Your task to perform on an android device: Open the phone app and click the voicemail tab. Image 0: 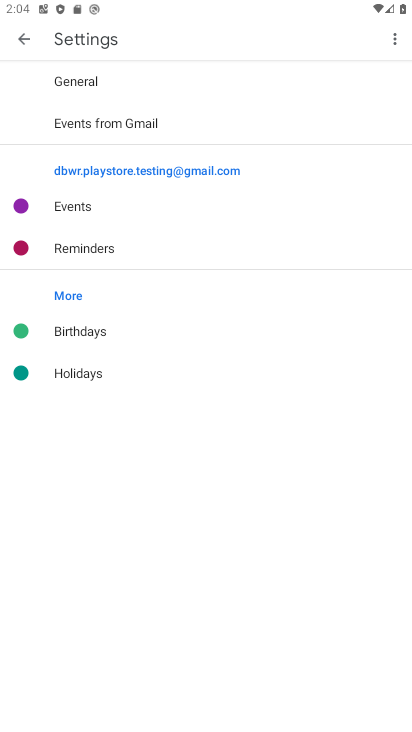
Step 0: press home button
Your task to perform on an android device: Open the phone app and click the voicemail tab. Image 1: 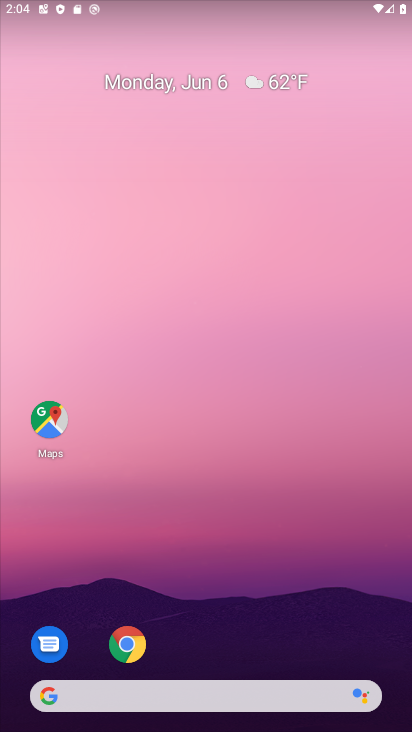
Step 1: drag from (119, 711) to (144, 48)
Your task to perform on an android device: Open the phone app and click the voicemail tab. Image 2: 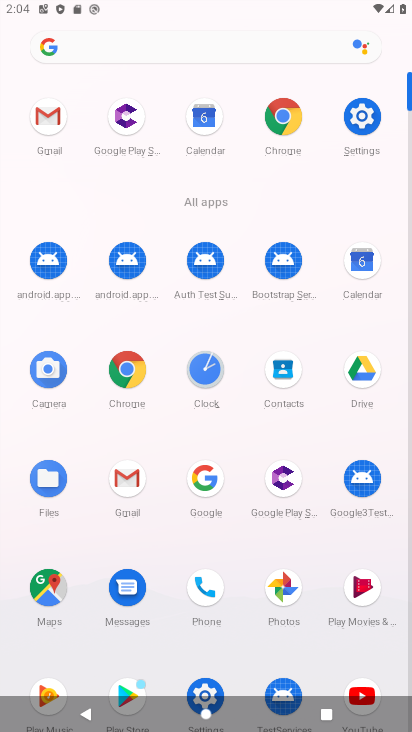
Step 2: click (204, 595)
Your task to perform on an android device: Open the phone app and click the voicemail tab. Image 3: 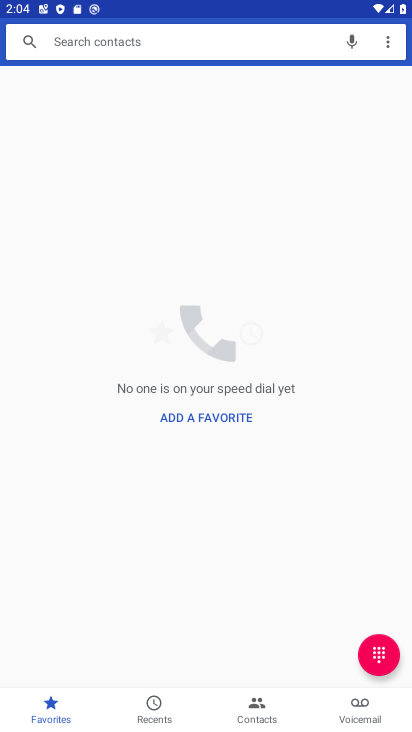
Step 3: click (369, 721)
Your task to perform on an android device: Open the phone app and click the voicemail tab. Image 4: 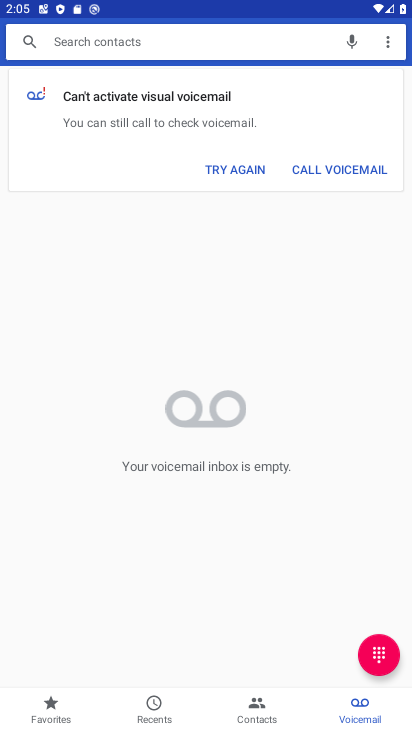
Step 4: task complete